Your task to perform on an android device: What's on the menu at Subway? Image 0: 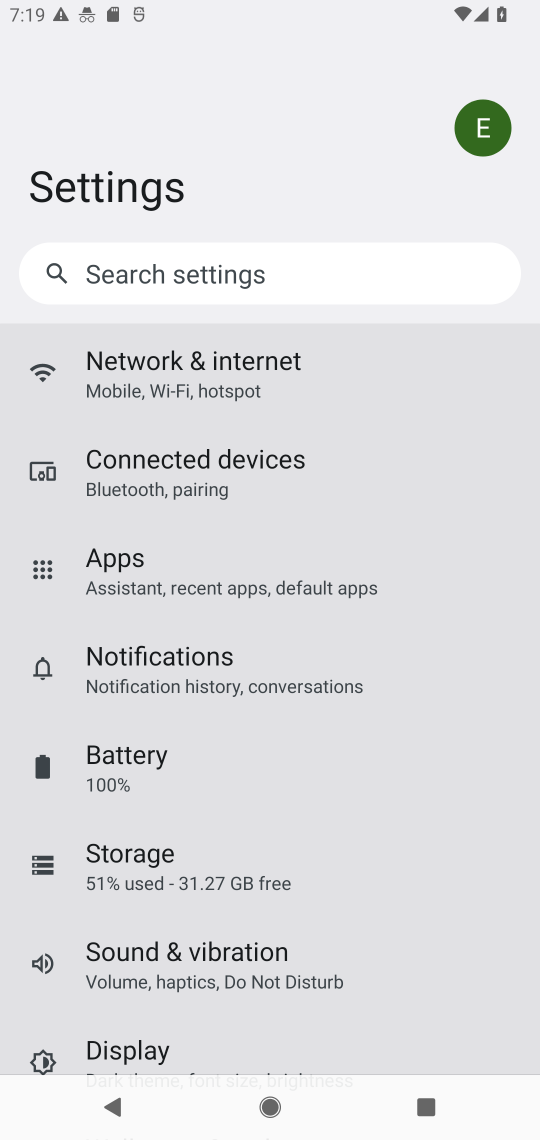
Step 0: press home button
Your task to perform on an android device: What's on the menu at Subway? Image 1: 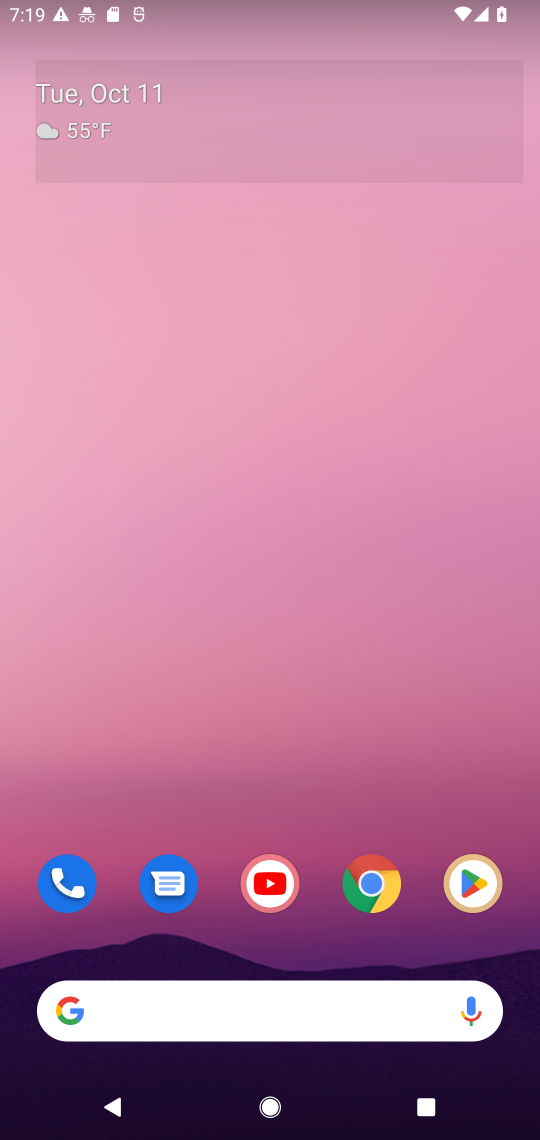
Step 1: drag from (303, 866) to (191, 44)
Your task to perform on an android device: What's on the menu at Subway? Image 2: 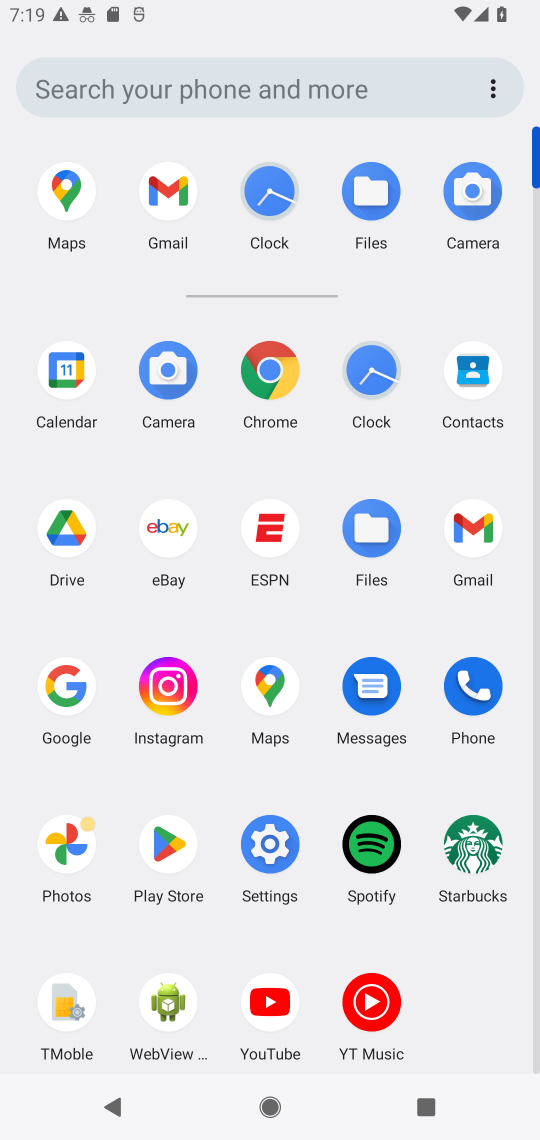
Step 2: click (280, 369)
Your task to perform on an android device: What's on the menu at Subway? Image 3: 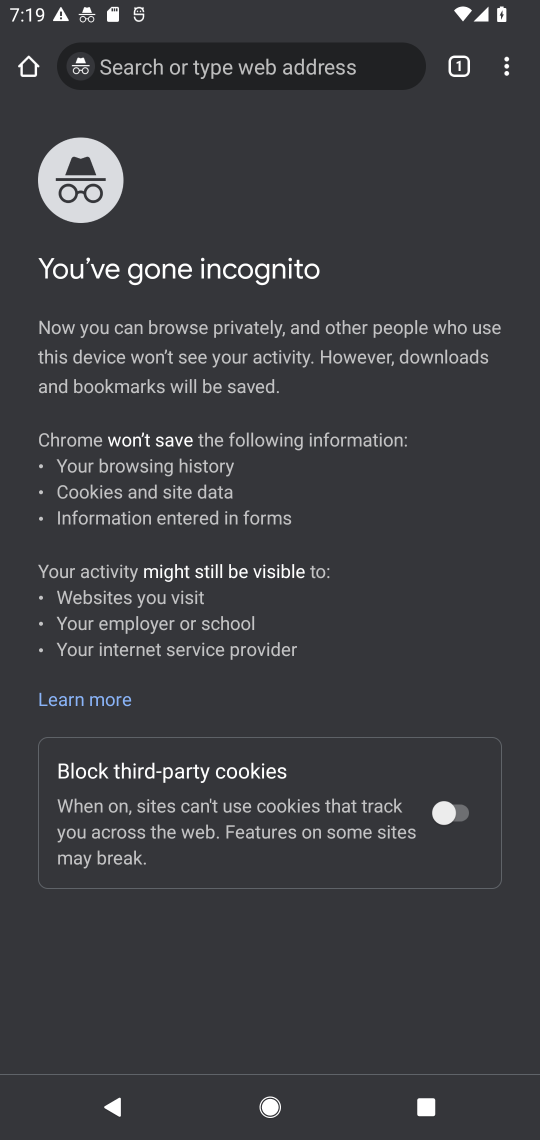
Step 3: click (343, 60)
Your task to perform on an android device: What's on the menu at Subway? Image 4: 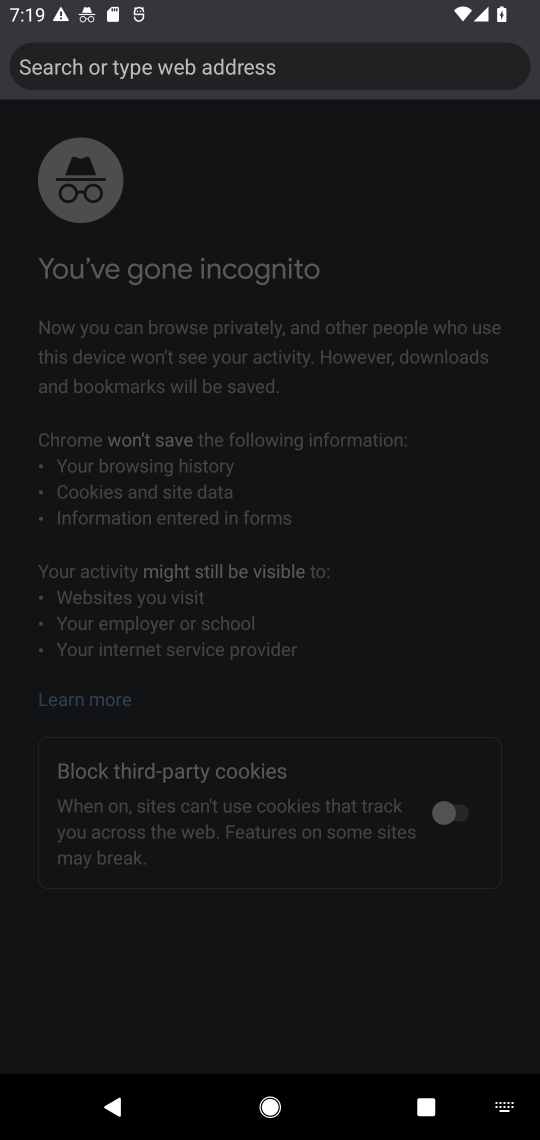
Step 4: type "What's on the menu at Subway?"
Your task to perform on an android device: What's on the menu at Subway? Image 5: 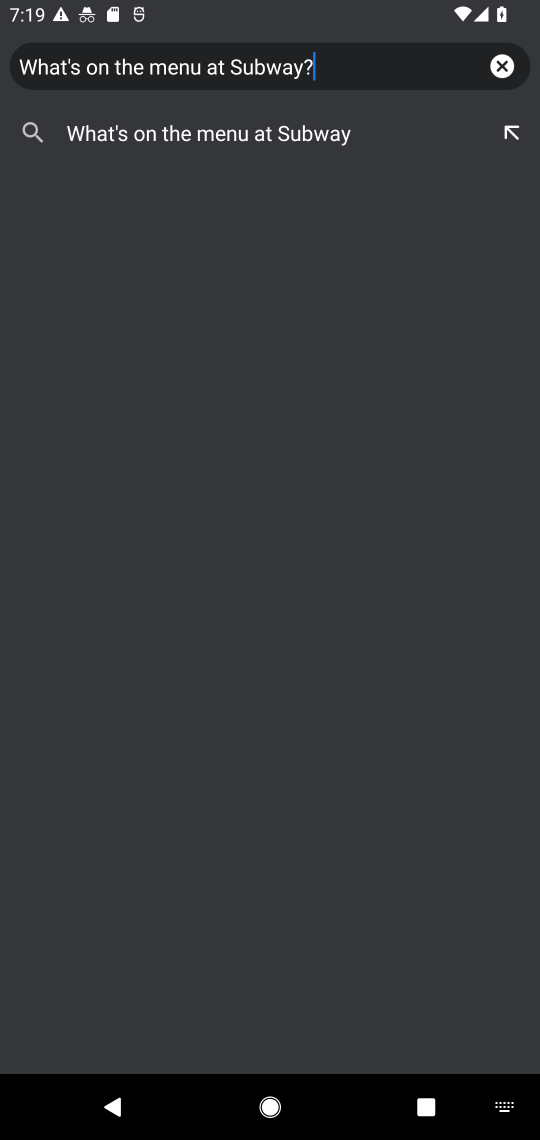
Step 5: press enter
Your task to perform on an android device: What's on the menu at Subway? Image 6: 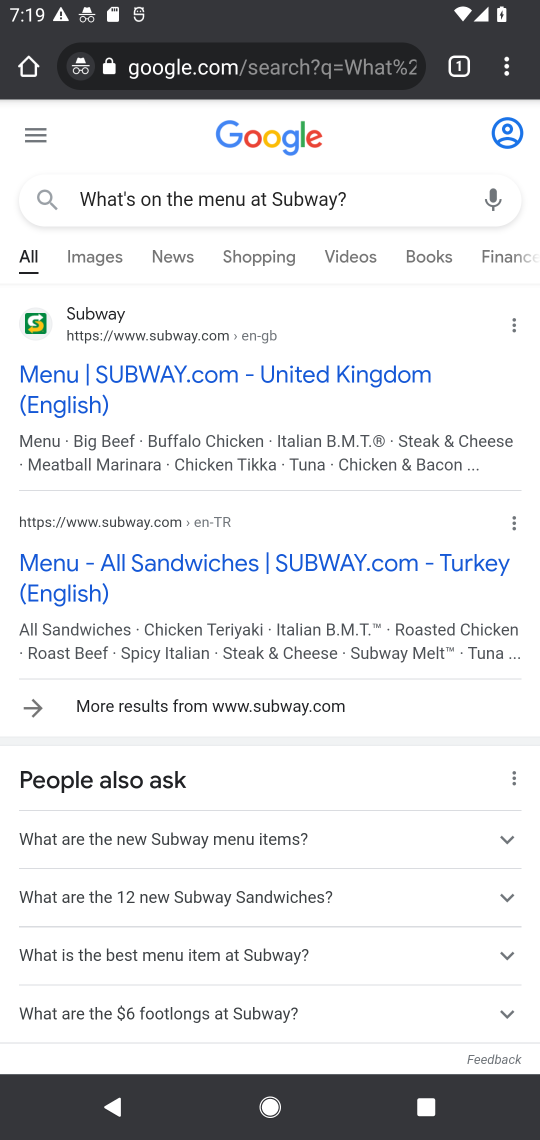
Step 6: click (231, 566)
Your task to perform on an android device: What's on the menu at Subway? Image 7: 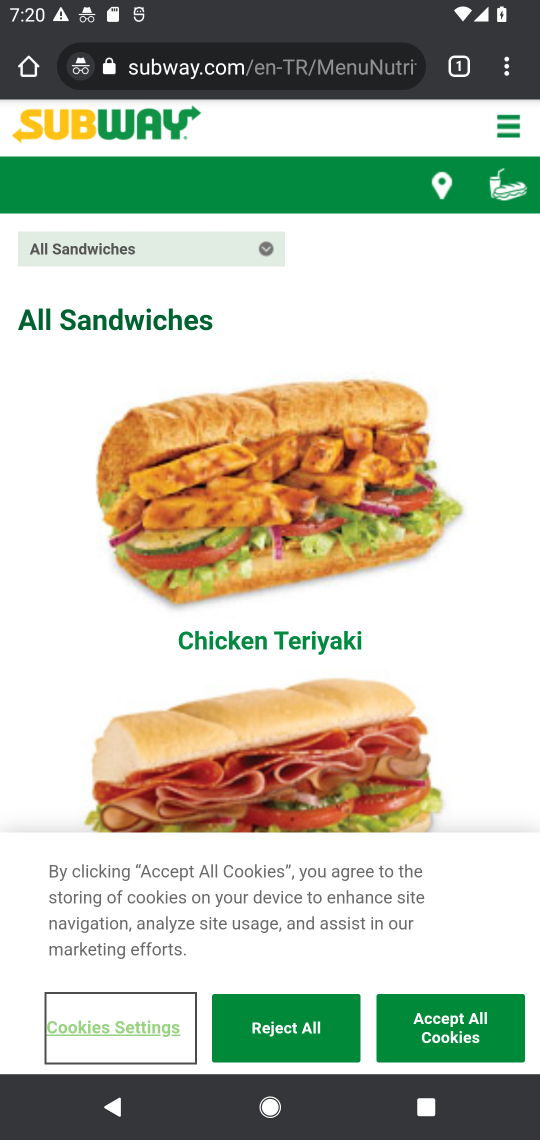
Step 7: press back button
Your task to perform on an android device: What's on the menu at Subway? Image 8: 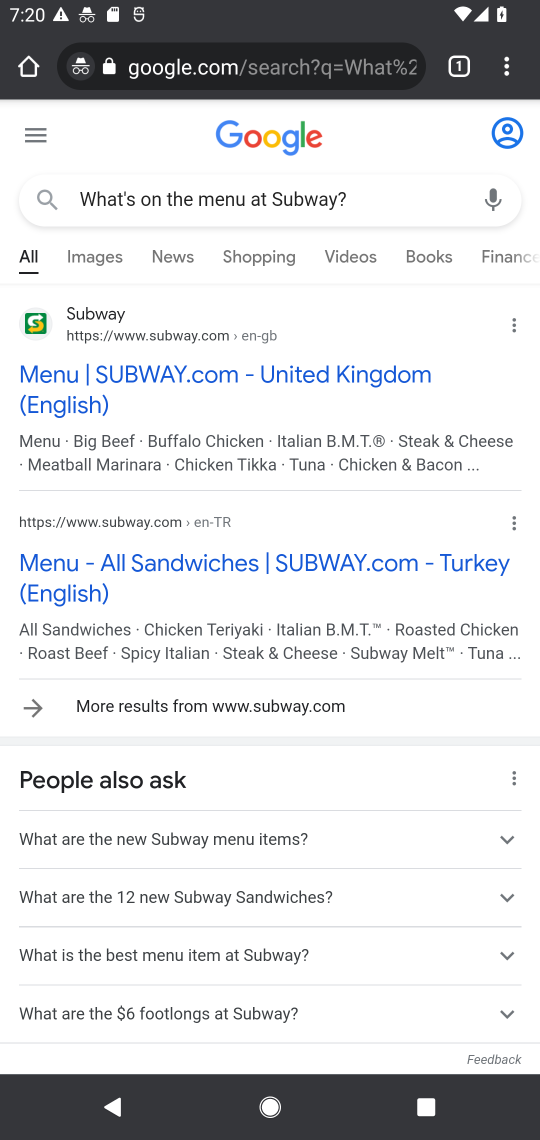
Step 8: click (174, 364)
Your task to perform on an android device: What's on the menu at Subway? Image 9: 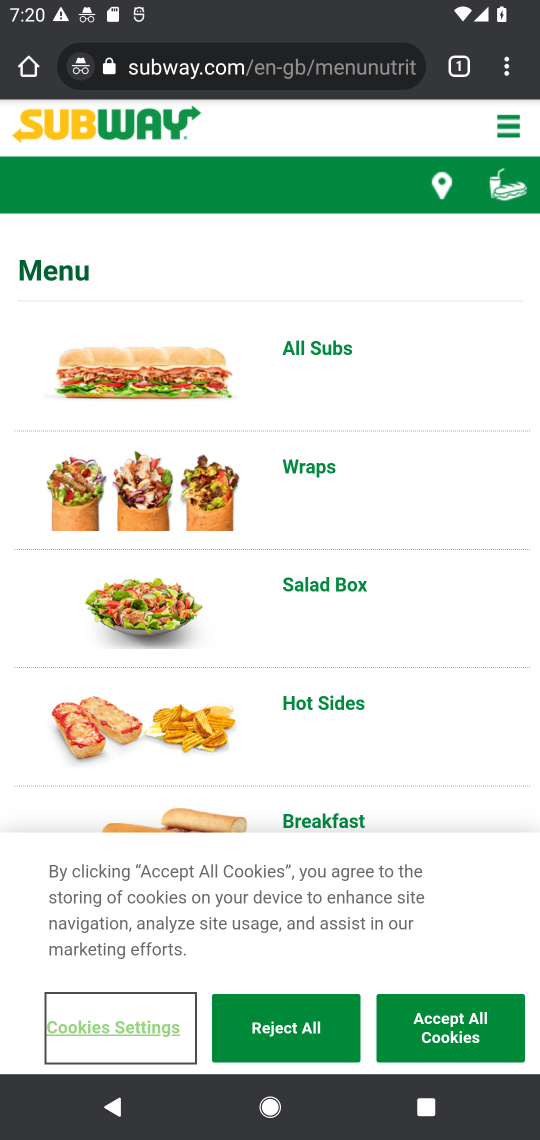
Step 9: task complete